Your task to perform on an android device: Go to privacy settings Image 0: 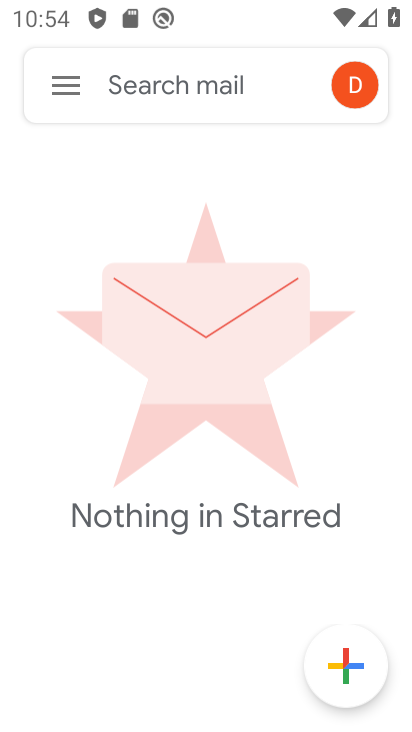
Step 0: press home button
Your task to perform on an android device: Go to privacy settings Image 1: 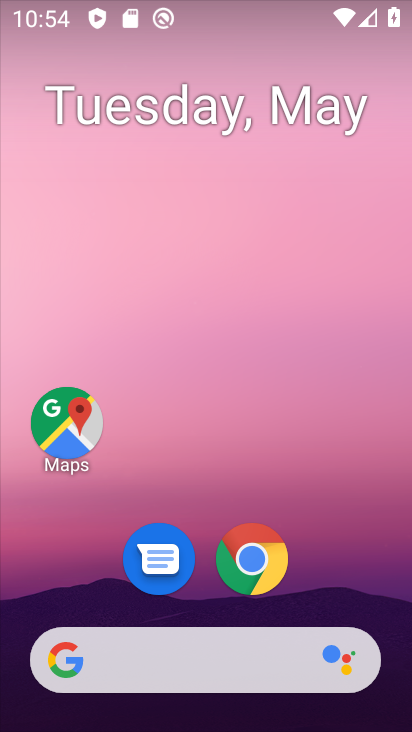
Step 1: drag from (382, 597) to (298, 57)
Your task to perform on an android device: Go to privacy settings Image 2: 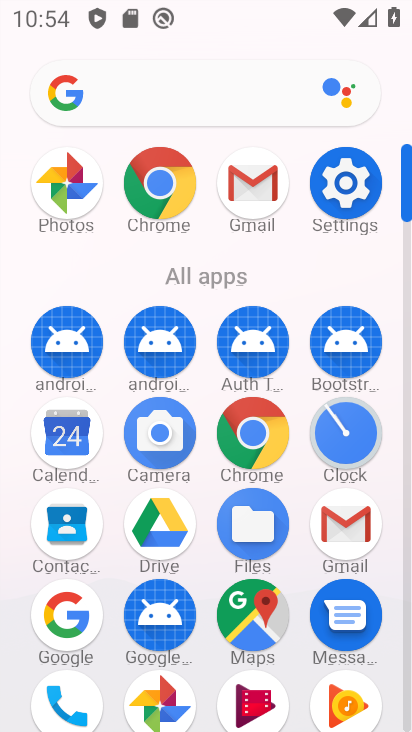
Step 2: click (346, 180)
Your task to perform on an android device: Go to privacy settings Image 3: 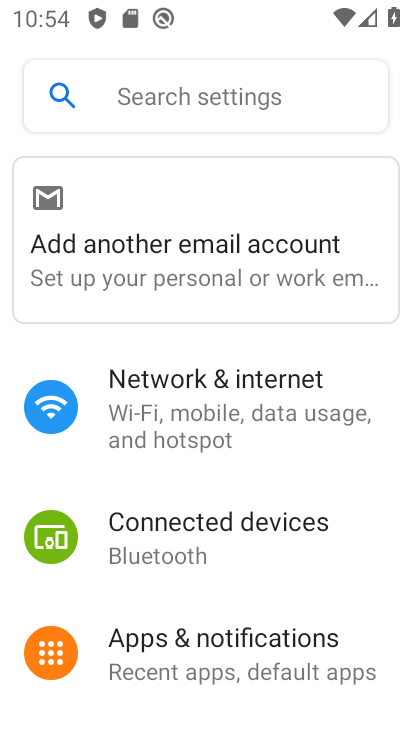
Step 3: drag from (224, 608) to (210, 251)
Your task to perform on an android device: Go to privacy settings Image 4: 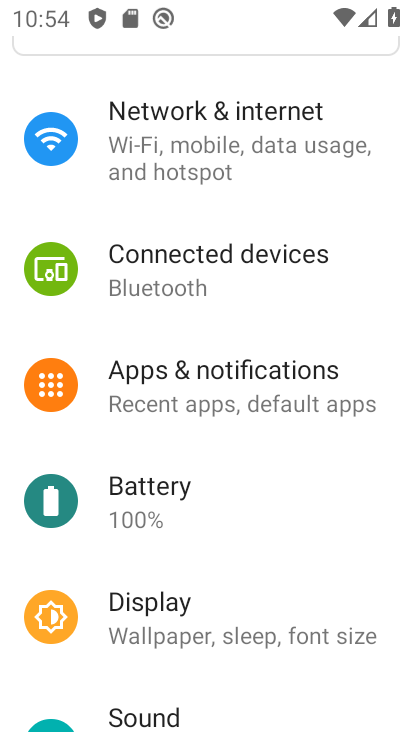
Step 4: drag from (237, 562) to (247, 180)
Your task to perform on an android device: Go to privacy settings Image 5: 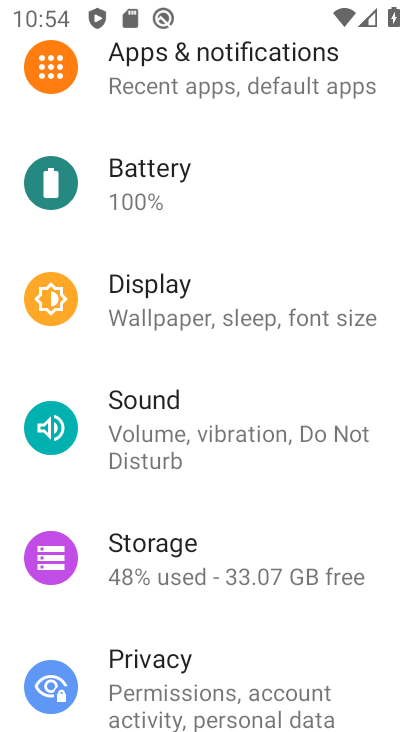
Step 5: click (221, 676)
Your task to perform on an android device: Go to privacy settings Image 6: 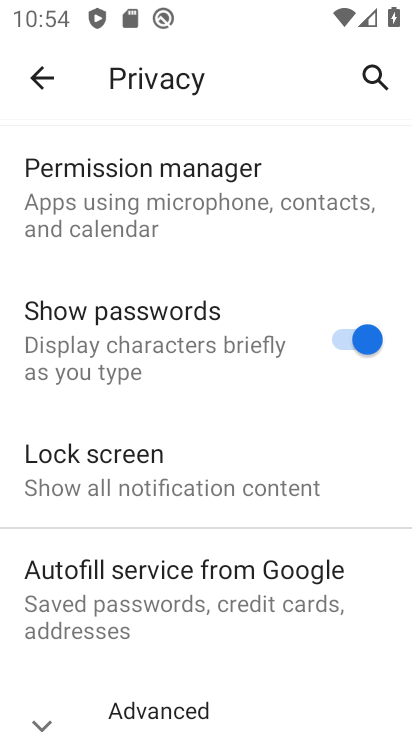
Step 6: task complete